Your task to perform on an android device: Go to CNN.com Image 0: 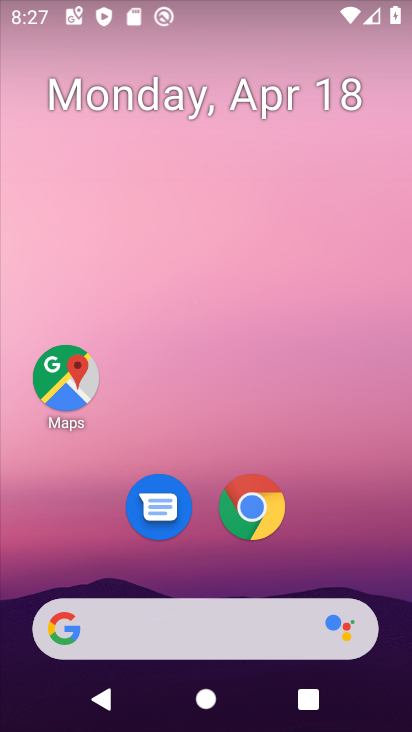
Step 0: drag from (273, 560) to (268, 13)
Your task to perform on an android device: Go to CNN.com Image 1: 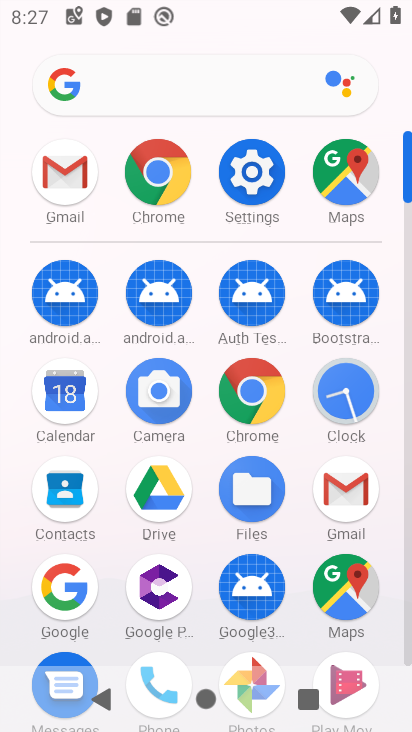
Step 1: click (152, 179)
Your task to perform on an android device: Go to CNN.com Image 2: 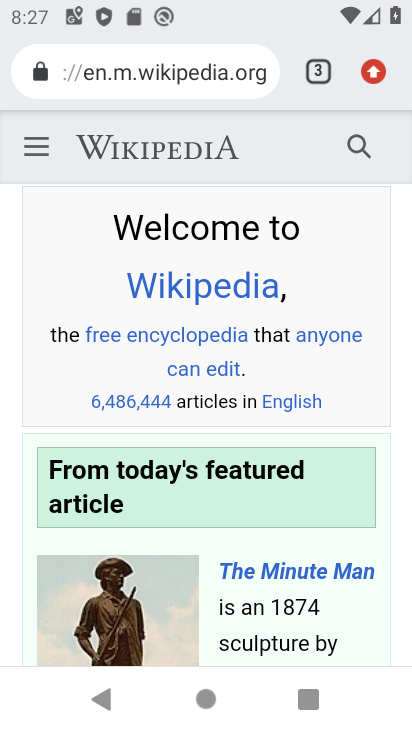
Step 2: click (319, 76)
Your task to perform on an android device: Go to CNN.com Image 3: 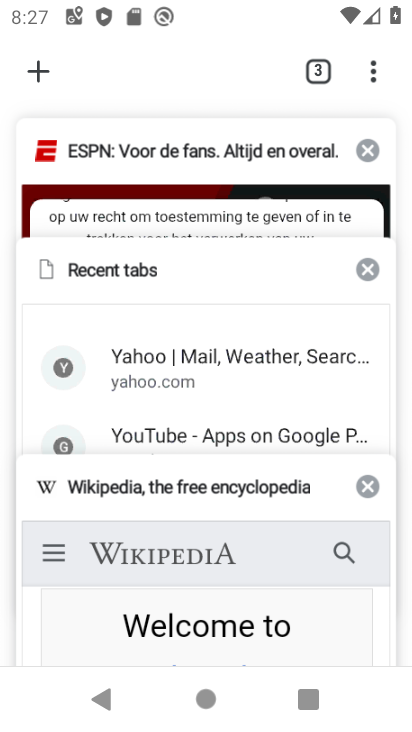
Step 3: click (44, 73)
Your task to perform on an android device: Go to CNN.com Image 4: 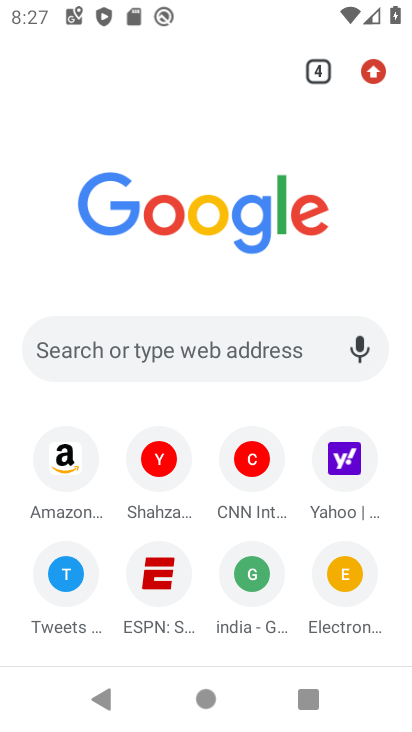
Step 4: click (143, 349)
Your task to perform on an android device: Go to CNN.com Image 5: 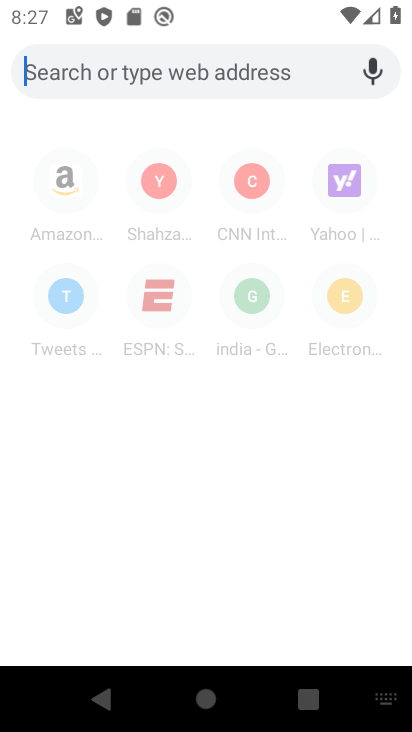
Step 5: type "CNN.com"
Your task to perform on an android device: Go to CNN.com Image 6: 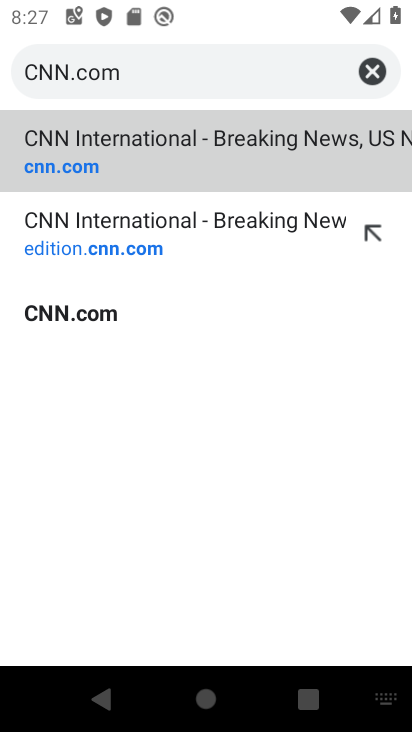
Step 6: click (77, 146)
Your task to perform on an android device: Go to CNN.com Image 7: 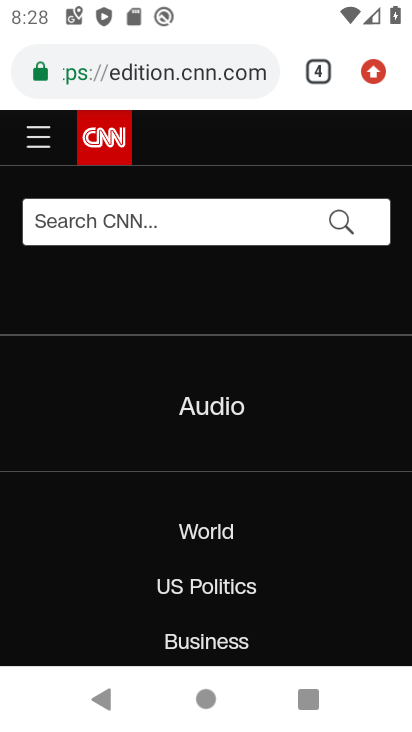
Step 7: task complete